Your task to perform on an android device: allow notifications from all sites in the chrome app Image 0: 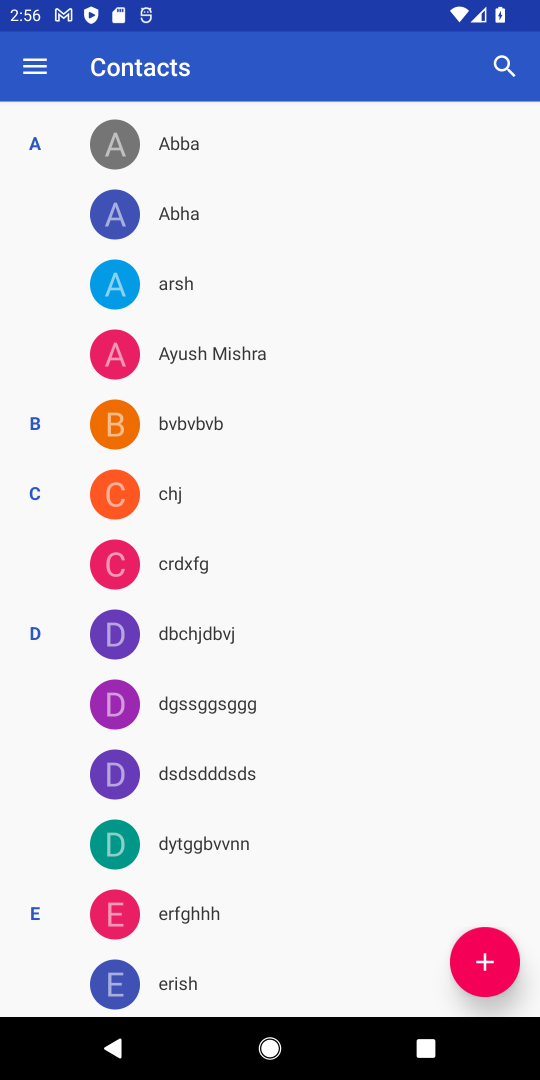
Step 0: press home button
Your task to perform on an android device: allow notifications from all sites in the chrome app Image 1: 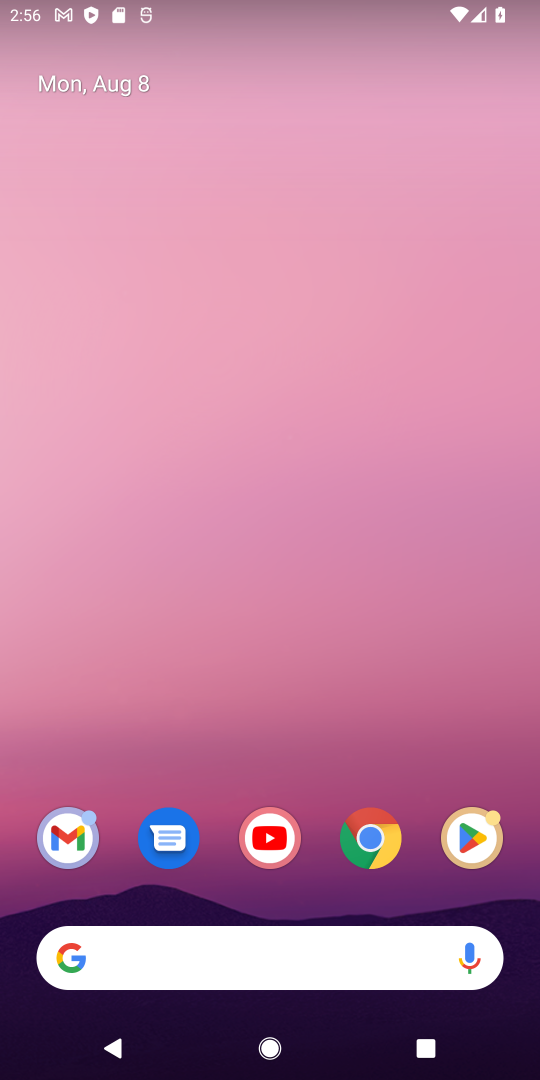
Step 1: drag from (278, 965) to (332, 350)
Your task to perform on an android device: allow notifications from all sites in the chrome app Image 2: 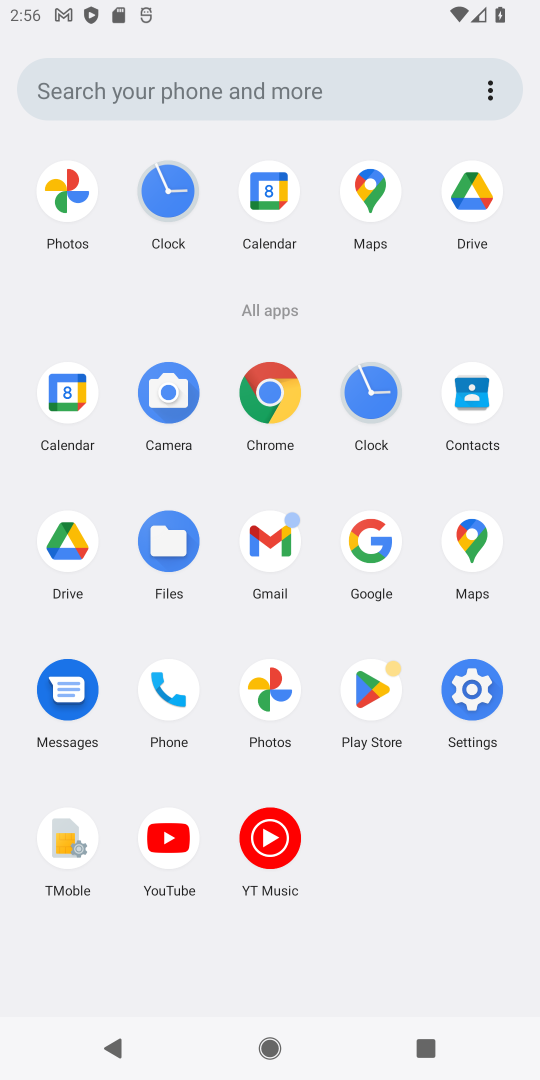
Step 2: click (269, 393)
Your task to perform on an android device: allow notifications from all sites in the chrome app Image 3: 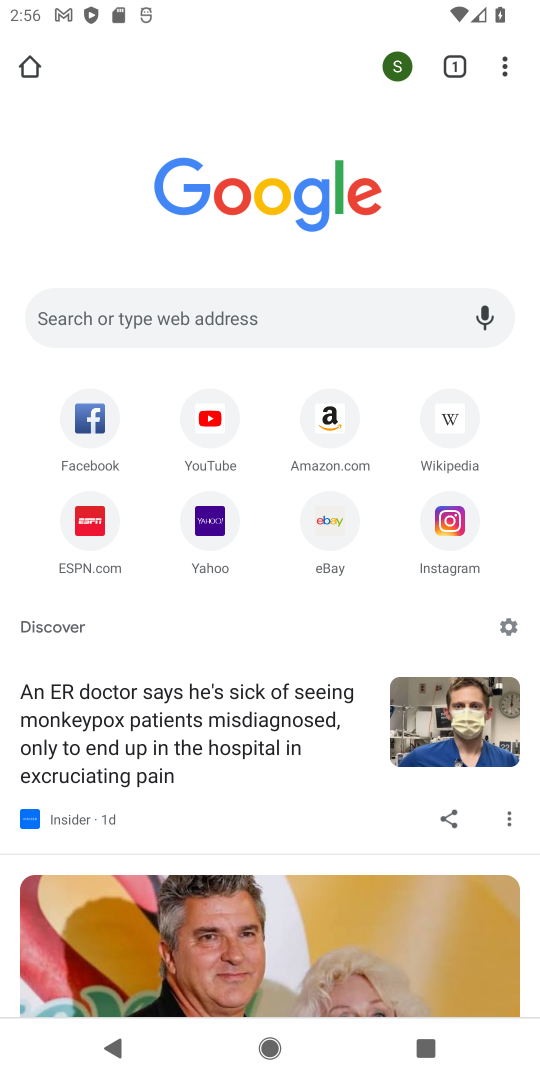
Step 3: click (503, 71)
Your task to perform on an android device: allow notifications from all sites in the chrome app Image 4: 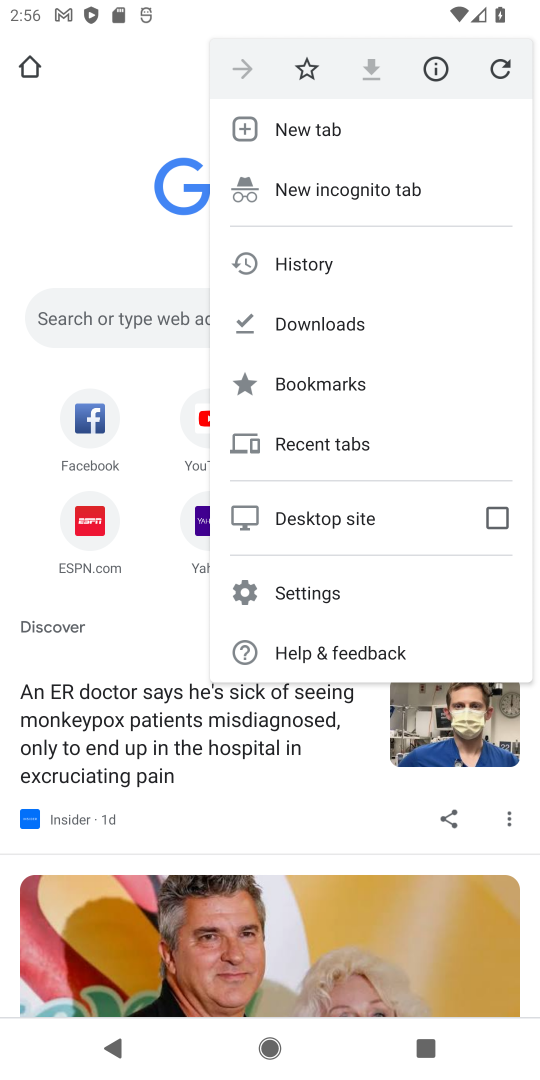
Step 4: click (309, 589)
Your task to perform on an android device: allow notifications from all sites in the chrome app Image 5: 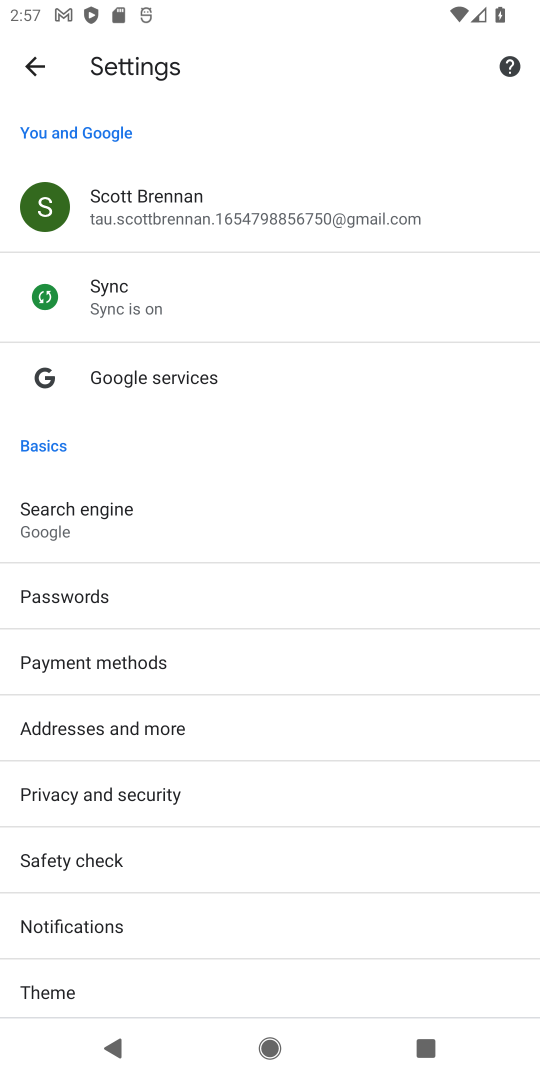
Step 5: drag from (168, 810) to (284, 655)
Your task to perform on an android device: allow notifications from all sites in the chrome app Image 6: 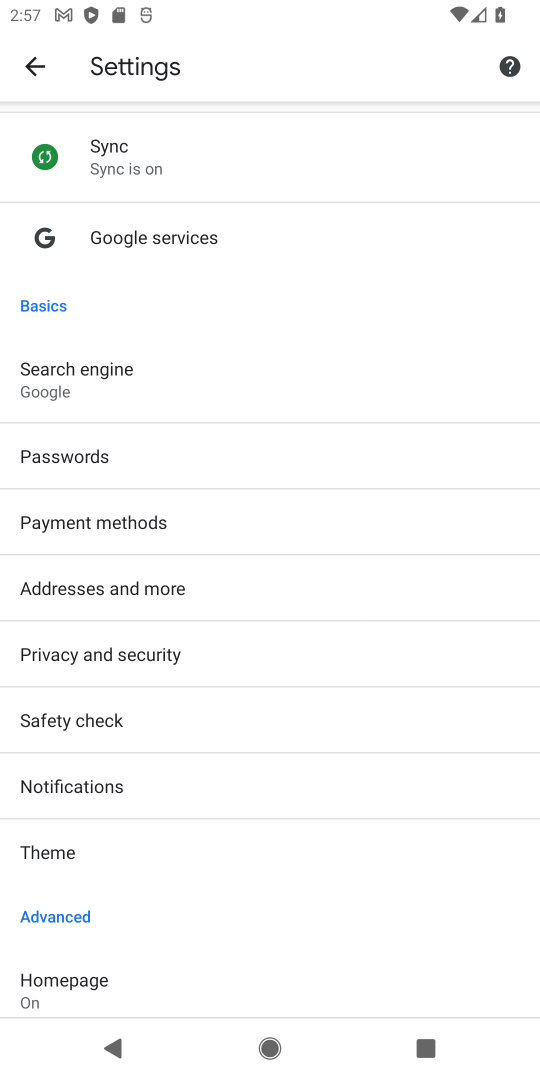
Step 6: click (117, 787)
Your task to perform on an android device: allow notifications from all sites in the chrome app Image 7: 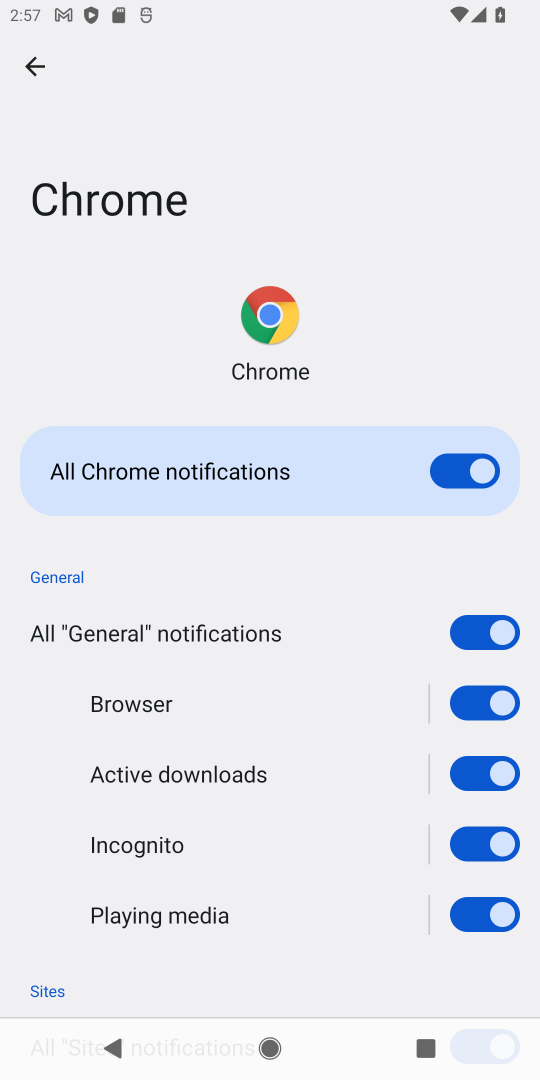
Step 7: task complete